Your task to perform on an android device: Check the weather Image 0: 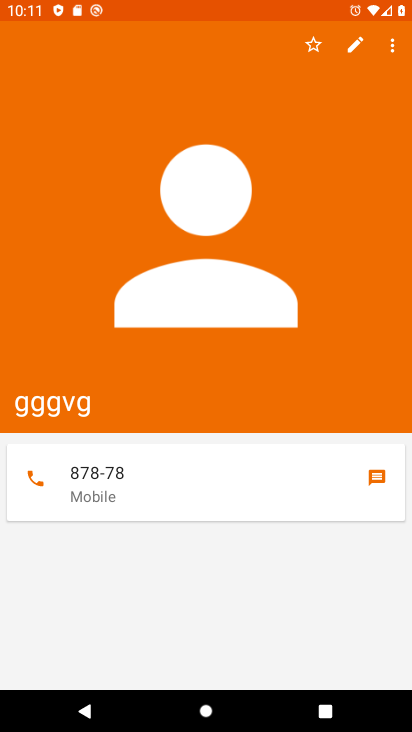
Step 0: press back button
Your task to perform on an android device: Check the weather Image 1: 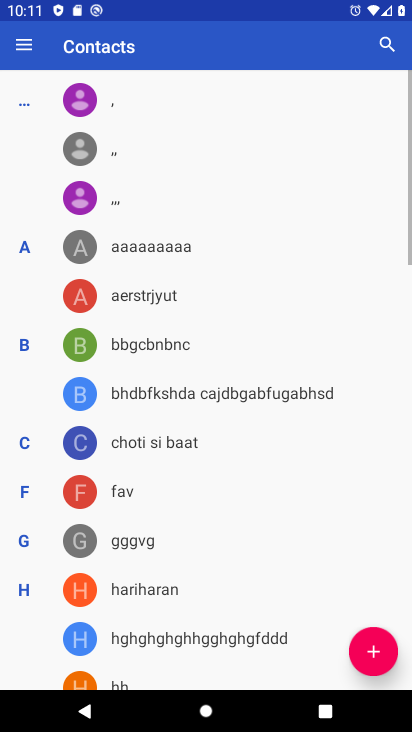
Step 1: press back button
Your task to perform on an android device: Check the weather Image 2: 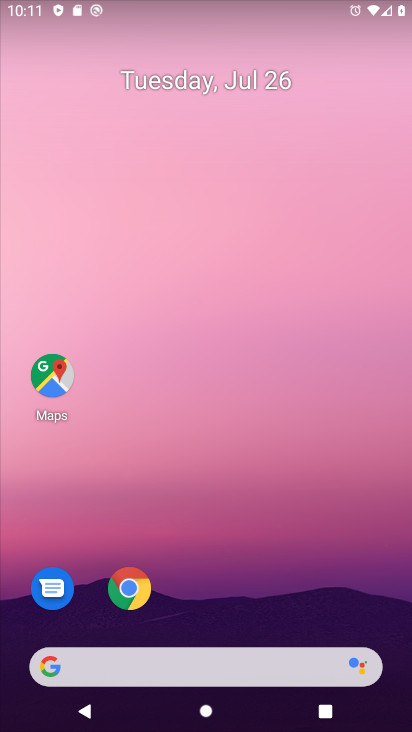
Step 2: click (126, 660)
Your task to perform on an android device: Check the weather Image 3: 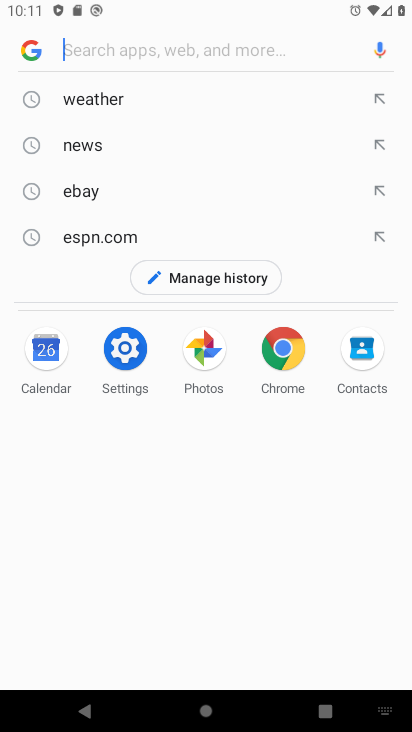
Step 3: click (101, 99)
Your task to perform on an android device: Check the weather Image 4: 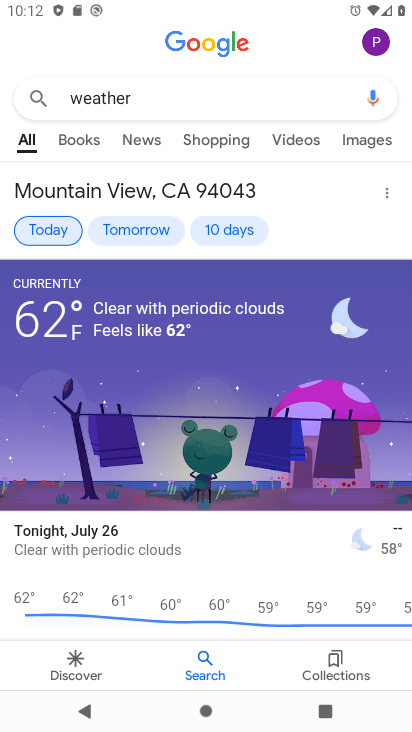
Step 4: task complete